Your task to perform on an android device: turn off notifications settings in the gmail app Image 0: 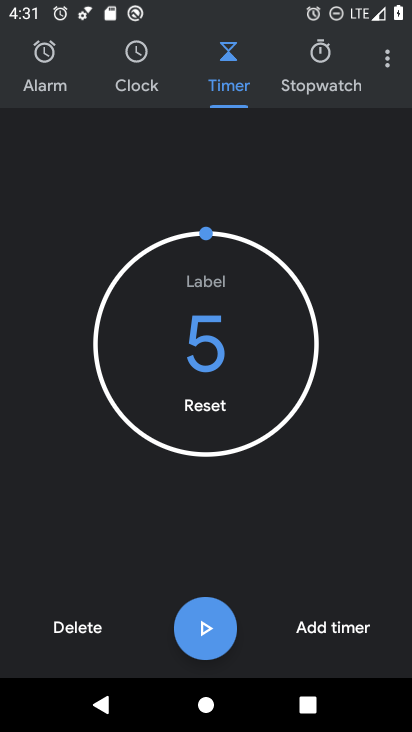
Step 0: press home button
Your task to perform on an android device: turn off notifications settings in the gmail app Image 1: 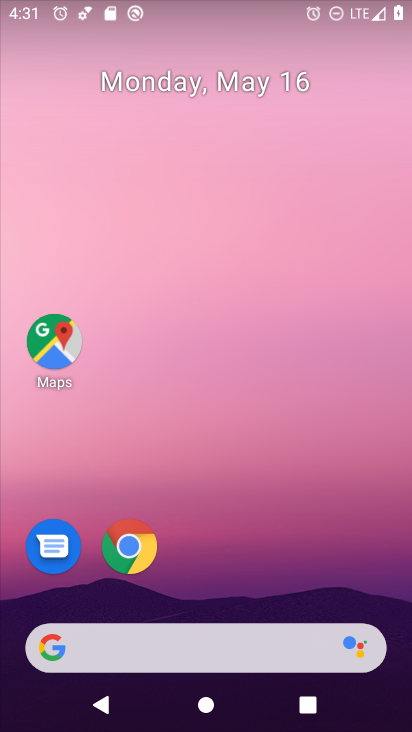
Step 1: drag from (304, 564) to (315, 106)
Your task to perform on an android device: turn off notifications settings in the gmail app Image 2: 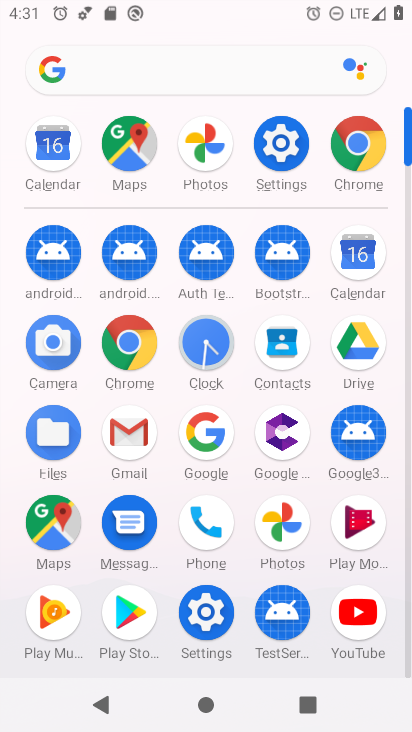
Step 2: click (137, 442)
Your task to perform on an android device: turn off notifications settings in the gmail app Image 3: 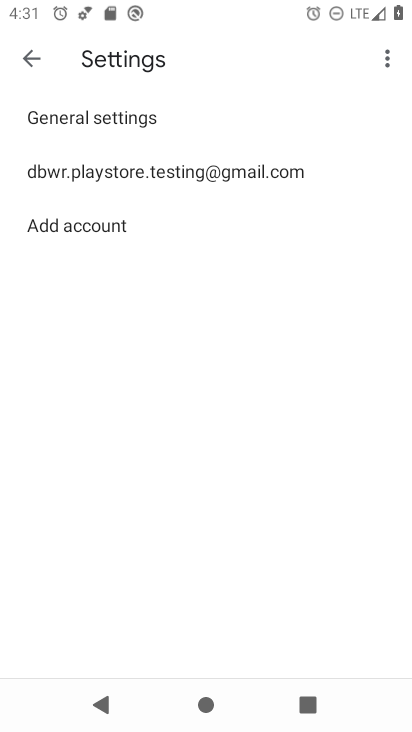
Step 3: click (208, 184)
Your task to perform on an android device: turn off notifications settings in the gmail app Image 4: 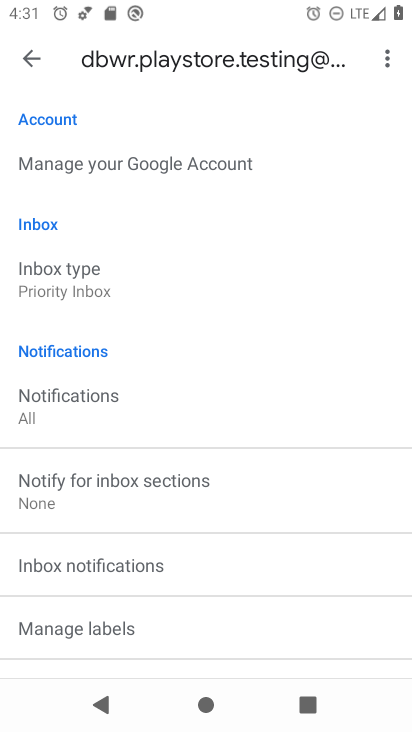
Step 4: drag from (274, 588) to (282, 437)
Your task to perform on an android device: turn off notifications settings in the gmail app Image 5: 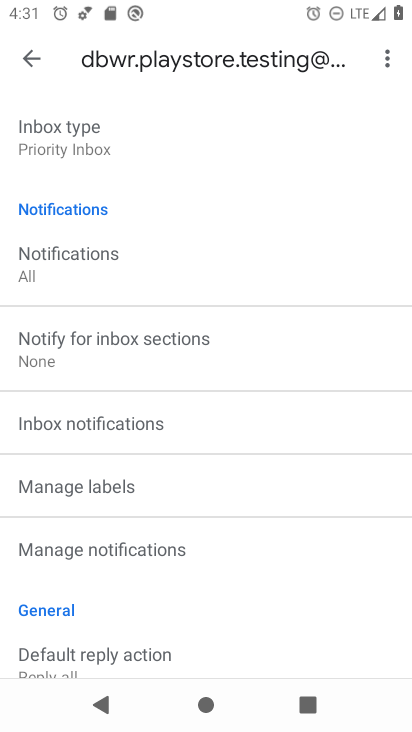
Step 5: drag from (292, 600) to (300, 433)
Your task to perform on an android device: turn off notifications settings in the gmail app Image 6: 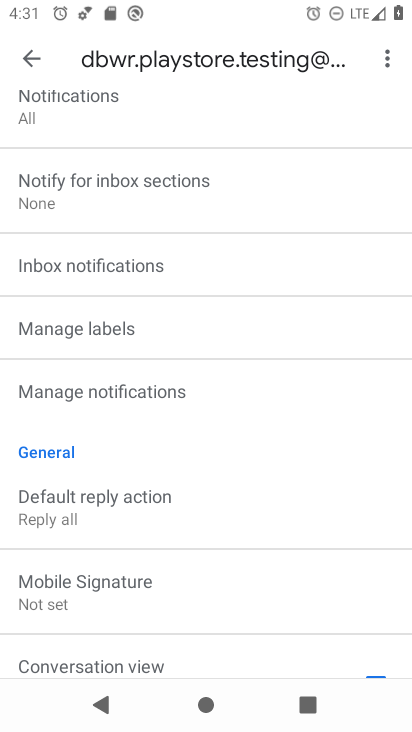
Step 6: drag from (312, 612) to (310, 406)
Your task to perform on an android device: turn off notifications settings in the gmail app Image 7: 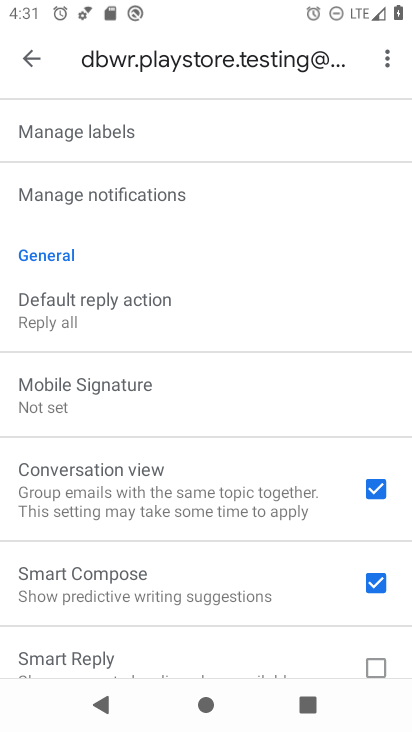
Step 7: drag from (297, 489) to (298, 391)
Your task to perform on an android device: turn off notifications settings in the gmail app Image 8: 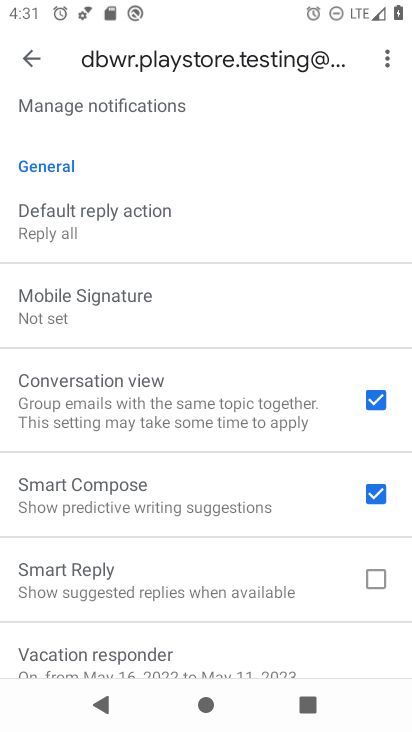
Step 8: drag from (286, 621) to (289, 397)
Your task to perform on an android device: turn off notifications settings in the gmail app Image 9: 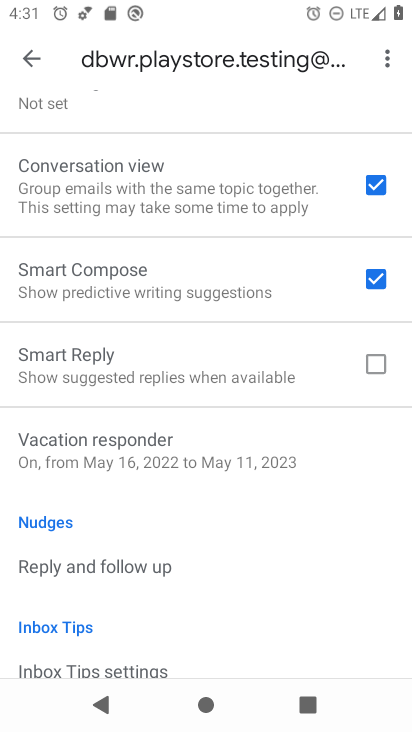
Step 9: drag from (274, 610) to (274, 429)
Your task to perform on an android device: turn off notifications settings in the gmail app Image 10: 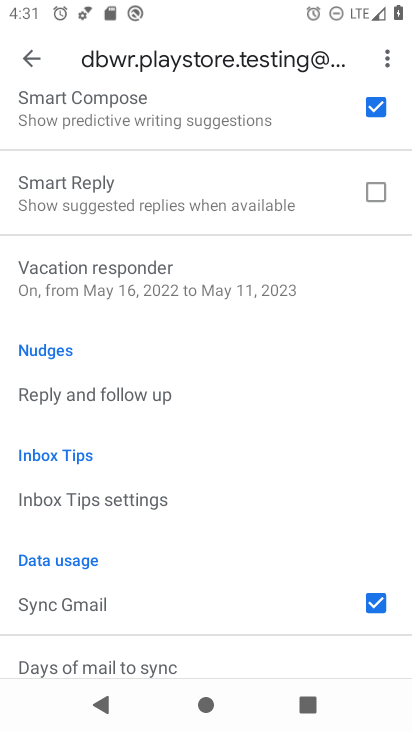
Step 10: drag from (288, 268) to (290, 404)
Your task to perform on an android device: turn off notifications settings in the gmail app Image 11: 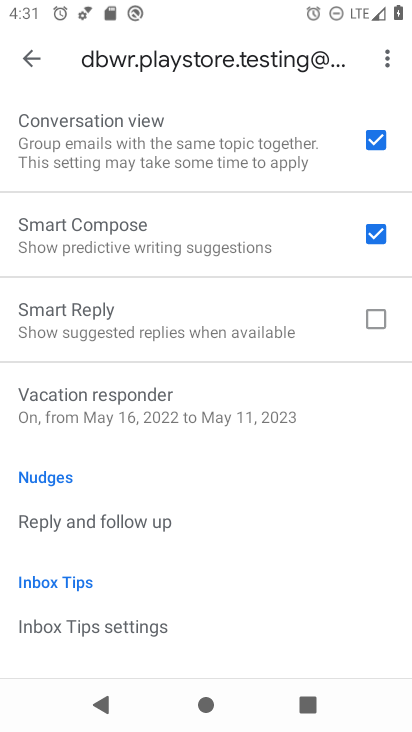
Step 11: drag from (284, 207) to (284, 428)
Your task to perform on an android device: turn off notifications settings in the gmail app Image 12: 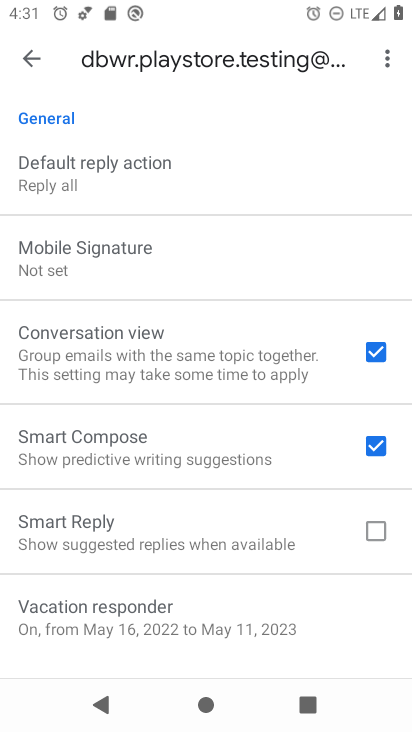
Step 12: drag from (232, 167) to (235, 401)
Your task to perform on an android device: turn off notifications settings in the gmail app Image 13: 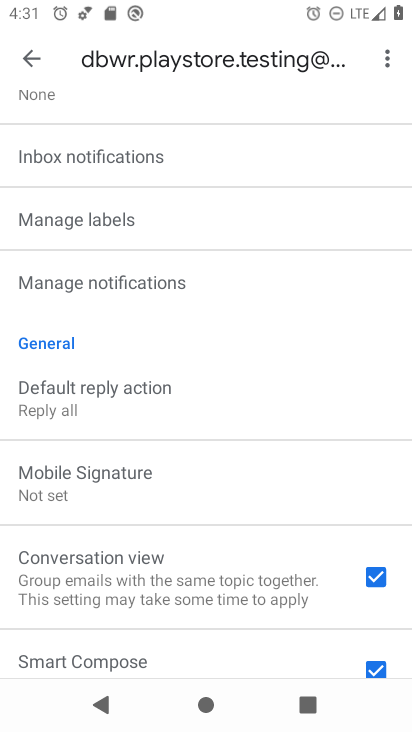
Step 13: click (153, 276)
Your task to perform on an android device: turn off notifications settings in the gmail app Image 14: 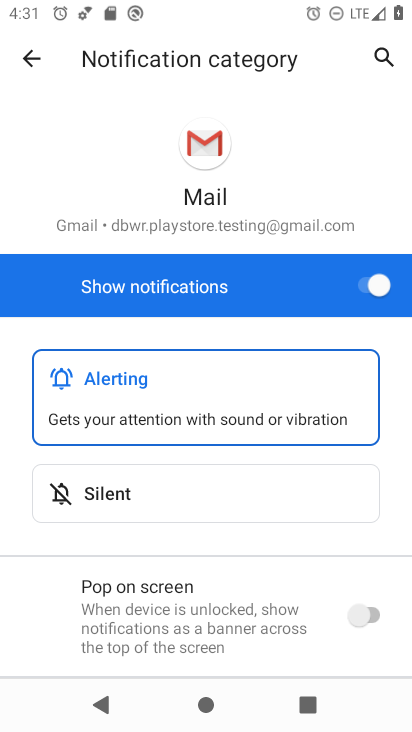
Step 14: click (372, 285)
Your task to perform on an android device: turn off notifications settings in the gmail app Image 15: 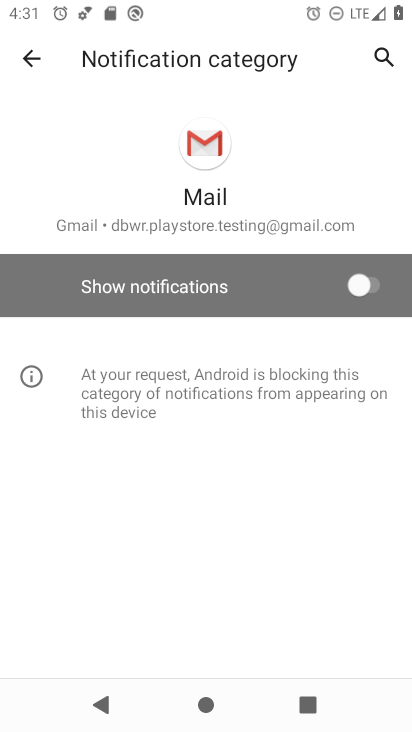
Step 15: task complete